Your task to perform on an android device: Go to wifi settings Image 0: 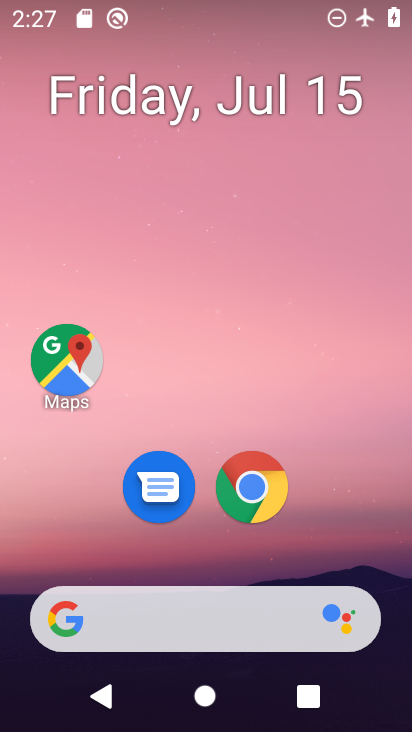
Step 0: drag from (220, 577) to (255, 375)
Your task to perform on an android device: Go to wifi settings Image 1: 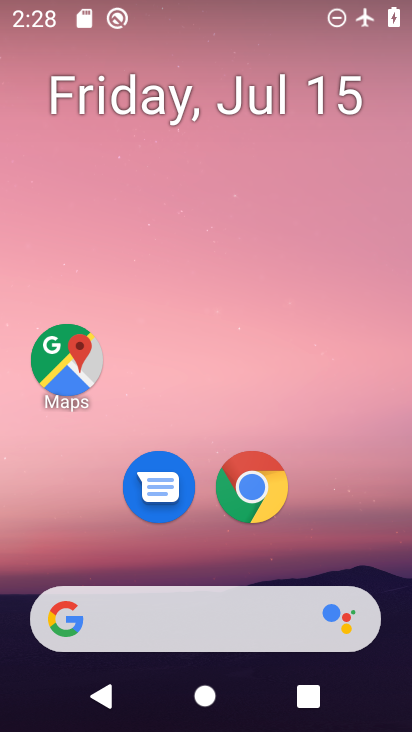
Step 1: drag from (176, 564) to (280, 76)
Your task to perform on an android device: Go to wifi settings Image 2: 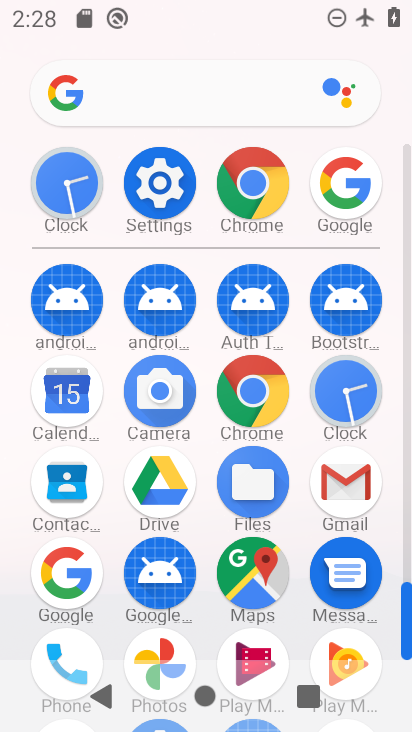
Step 2: click (176, 185)
Your task to perform on an android device: Go to wifi settings Image 3: 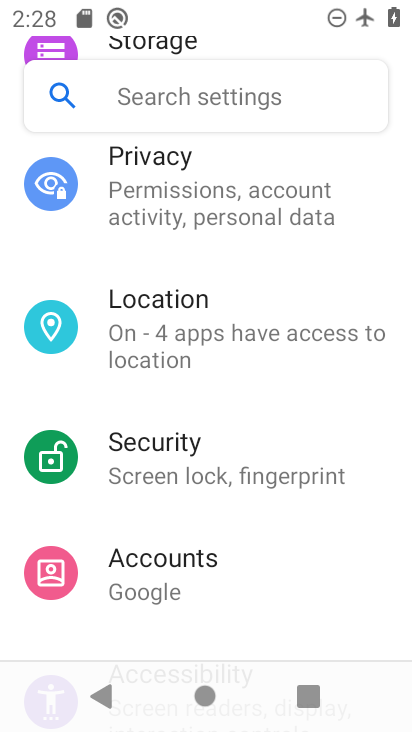
Step 3: drag from (201, 180) to (144, 731)
Your task to perform on an android device: Go to wifi settings Image 4: 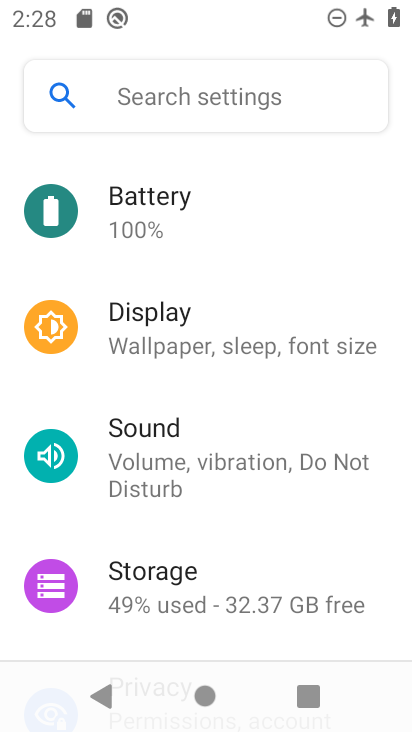
Step 4: drag from (171, 343) to (159, 673)
Your task to perform on an android device: Go to wifi settings Image 5: 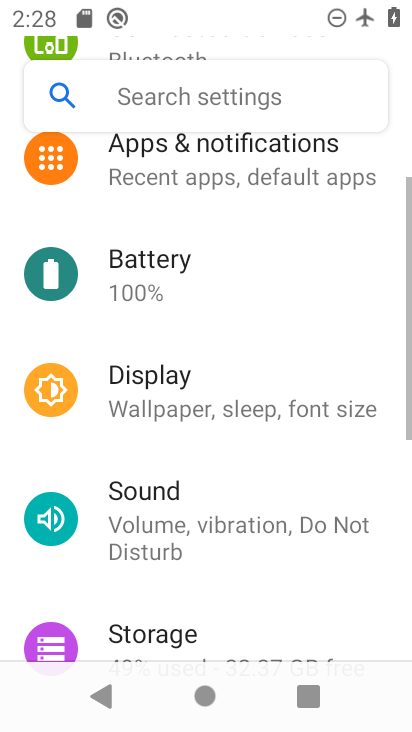
Step 5: drag from (194, 283) to (177, 731)
Your task to perform on an android device: Go to wifi settings Image 6: 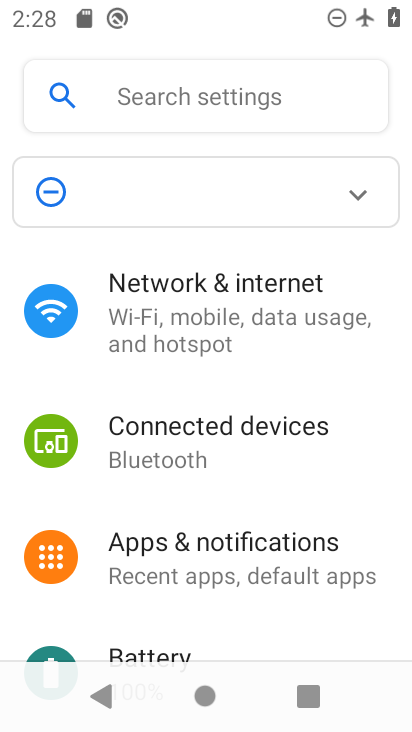
Step 6: click (187, 302)
Your task to perform on an android device: Go to wifi settings Image 7: 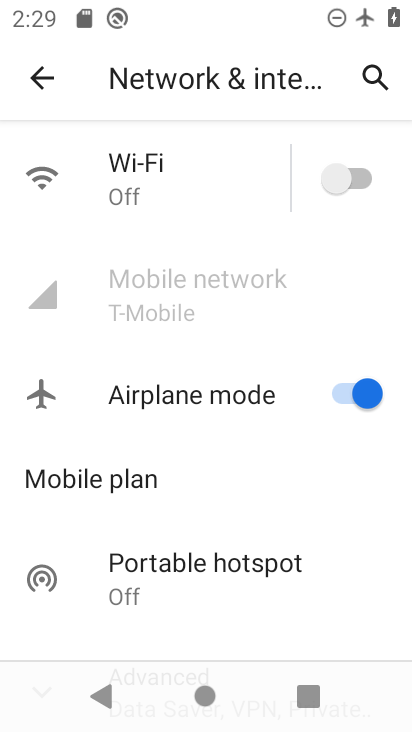
Step 7: click (173, 193)
Your task to perform on an android device: Go to wifi settings Image 8: 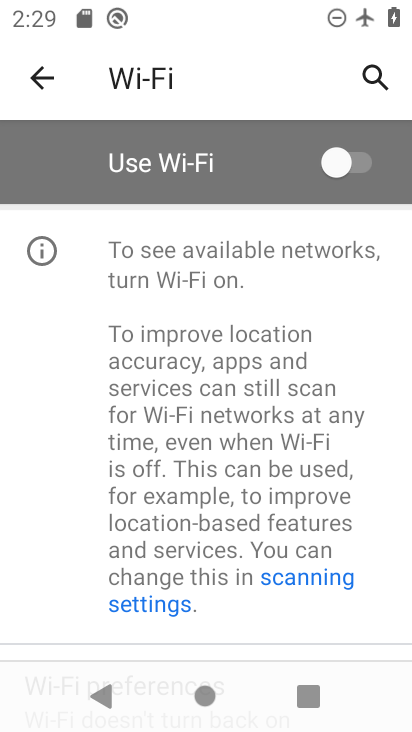
Step 8: task complete